Your task to perform on an android device: Open the web browser Image 0: 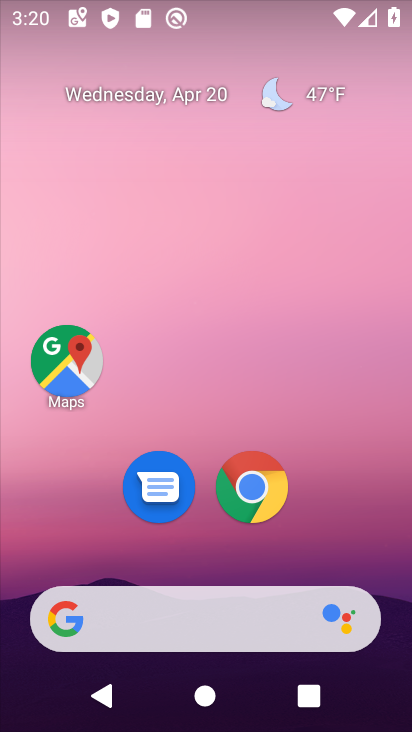
Step 0: drag from (351, 520) to (394, 209)
Your task to perform on an android device: Open the web browser Image 1: 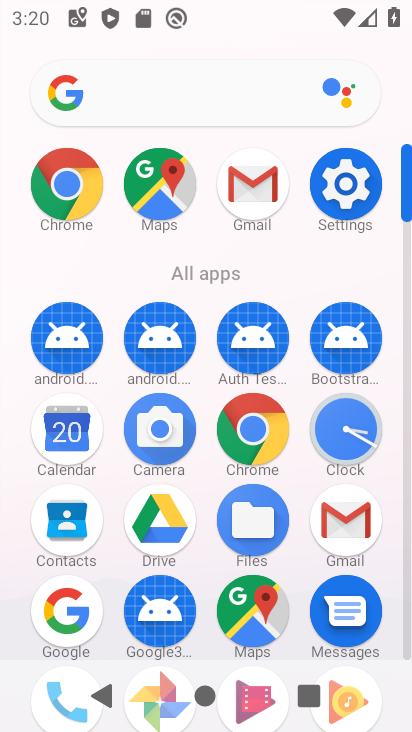
Step 1: click (277, 452)
Your task to perform on an android device: Open the web browser Image 2: 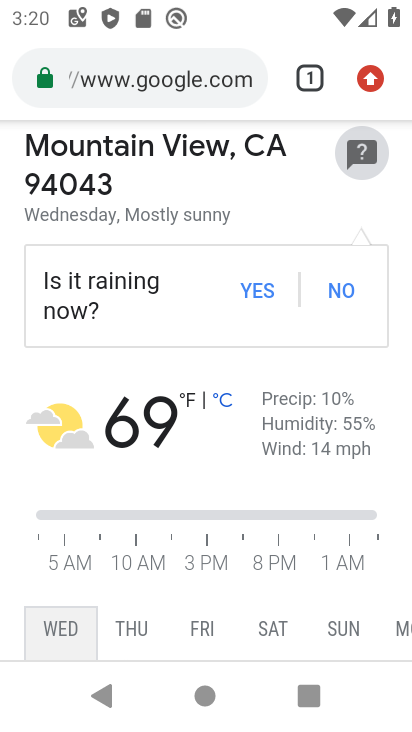
Step 2: task complete